Your task to perform on an android device: What's on my calendar tomorrow? Image 0: 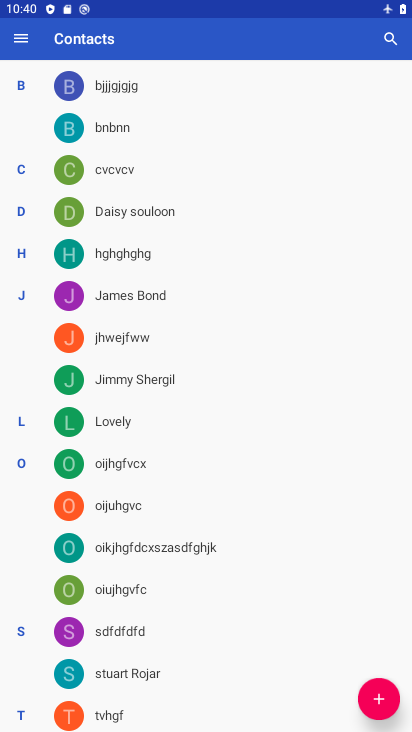
Step 0: press home button
Your task to perform on an android device: What's on my calendar tomorrow? Image 1: 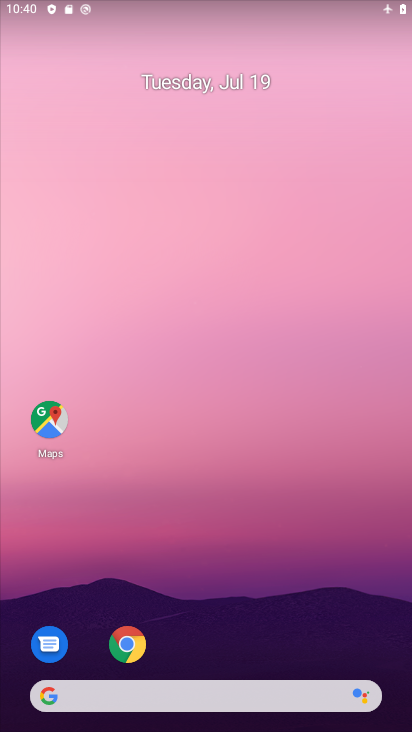
Step 1: drag from (241, 591) to (158, 41)
Your task to perform on an android device: What's on my calendar tomorrow? Image 2: 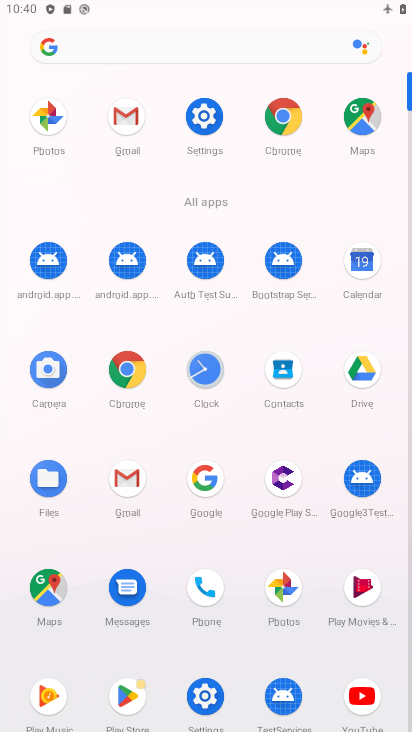
Step 2: click (366, 261)
Your task to perform on an android device: What's on my calendar tomorrow? Image 3: 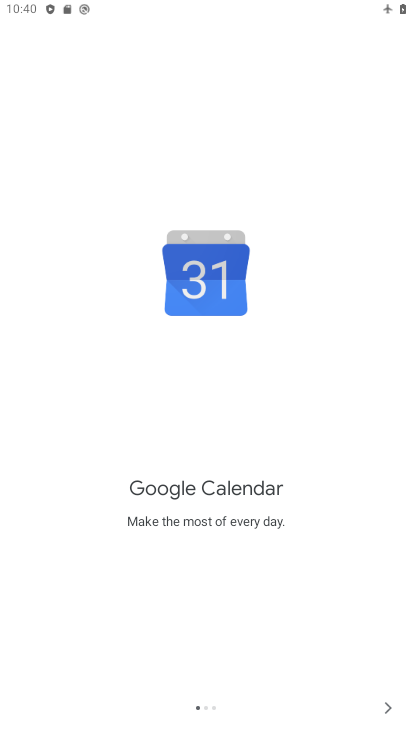
Step 3: click (389, 712)
Your task to perform on an android device: What's on my calendar tomorrow? Image 4: 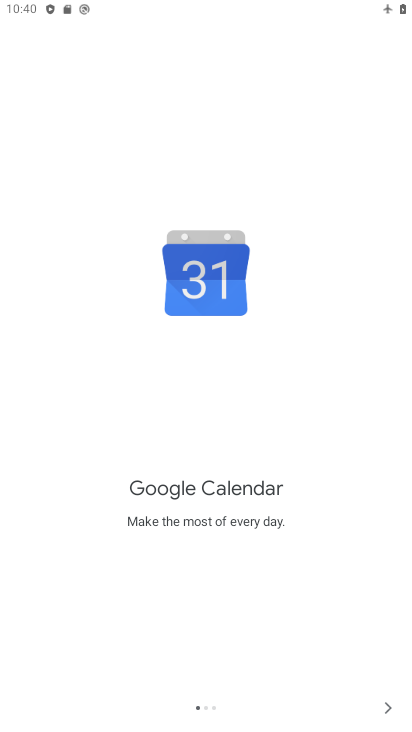
Step 4: click (389, 712)
Your task to perform on an android device: What's on my calendar tomorrow? Image 5: 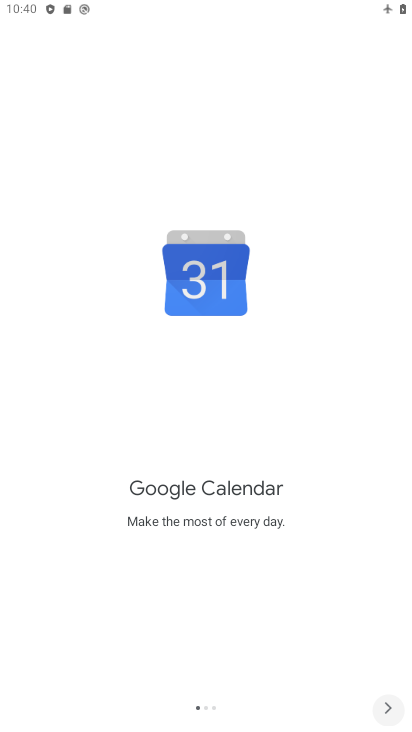
Step 5: click (389, 712)
Your task to perform on an android device: What's on my calendar tomorrow? Image 6: 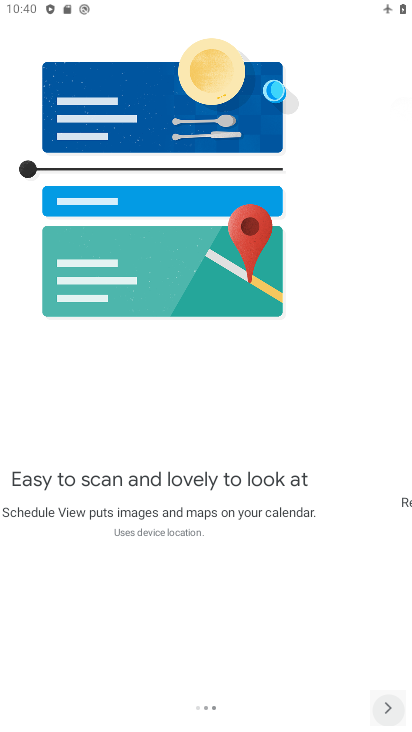
Step 6: click (389, 712)
Your task to perform on an android device: What's on my calendar tomorrow? Image 7: 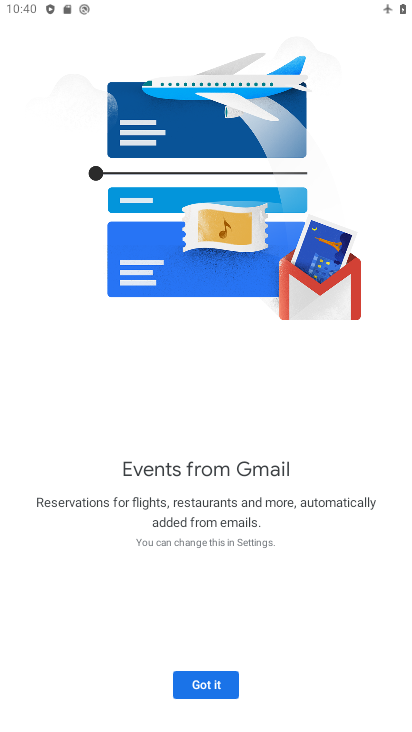
Step 7: click (213, 687)
Your task to perform on an android device: What's on my calendar tomorrow? Image 8: 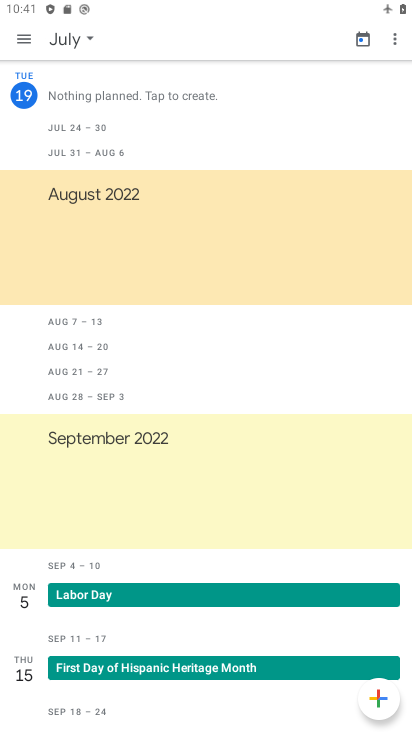
Step 8: click (88, 35)
Your task to perform on an android device: What's on my calendar tomorrow? Image 9: 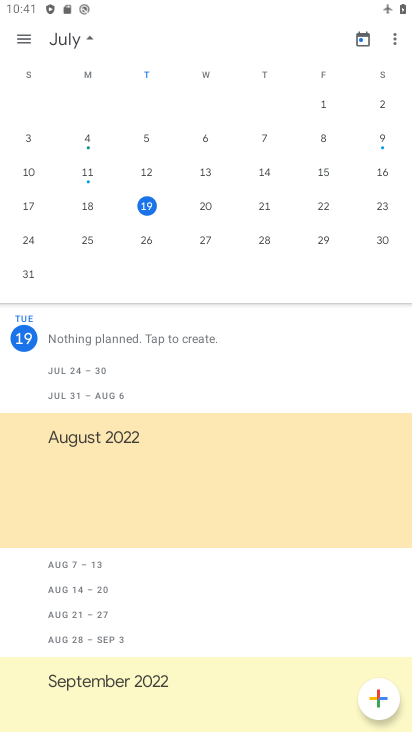
Step 9: click (203, 201)
Your task to perform on an android device: What's on my calendar tomorrow? Image 10: 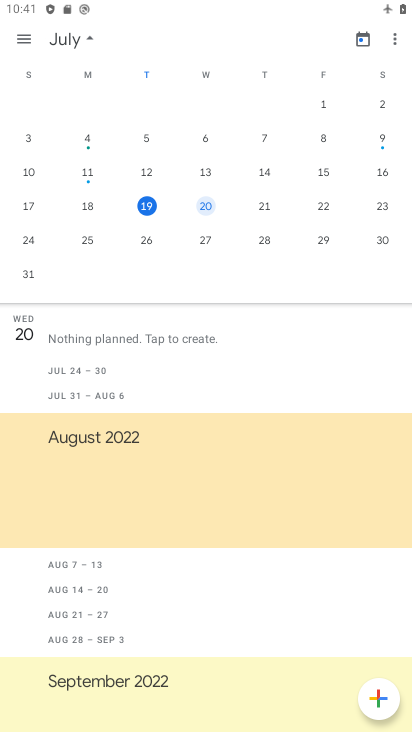
Step 10: click (206, 208)
Your task to perform on an android device: What's on my calendar tomorrow? Image 11: 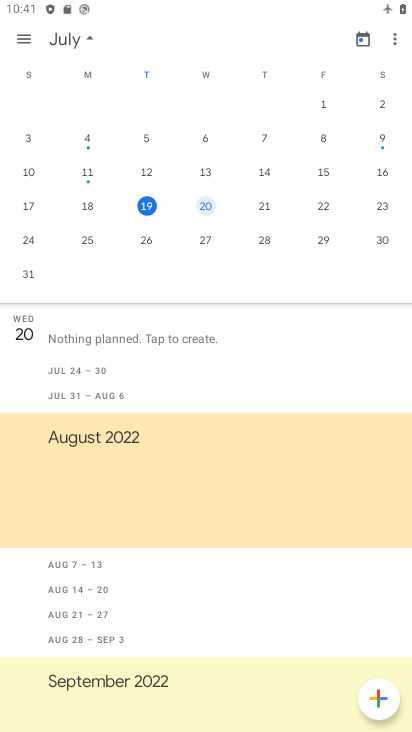
Step 11: click (206, 208)
Your task to perform on an android device: What's on my calendar tomorrow? Image 12: 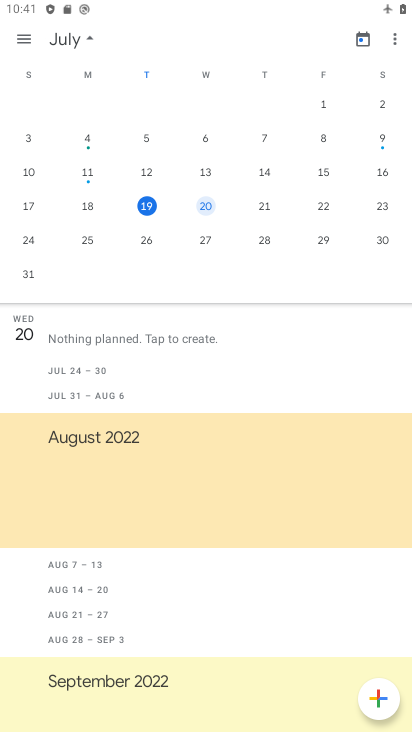
Step 12: task complete